Your task to perform on an android device: add a contact Image 0: 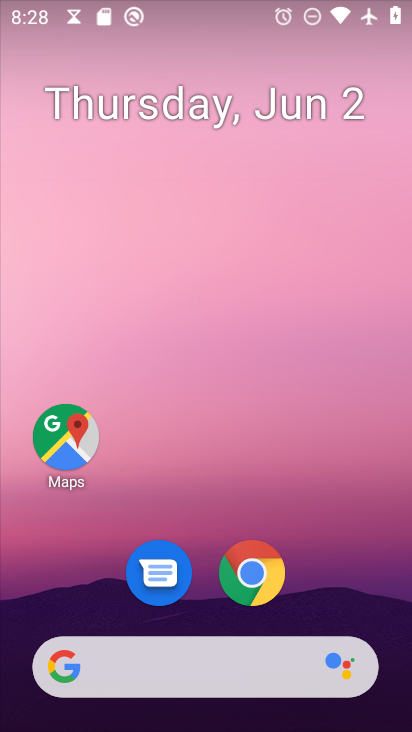
Step 0: press home button
Your task to perform on an android device: add a contact Image 1: 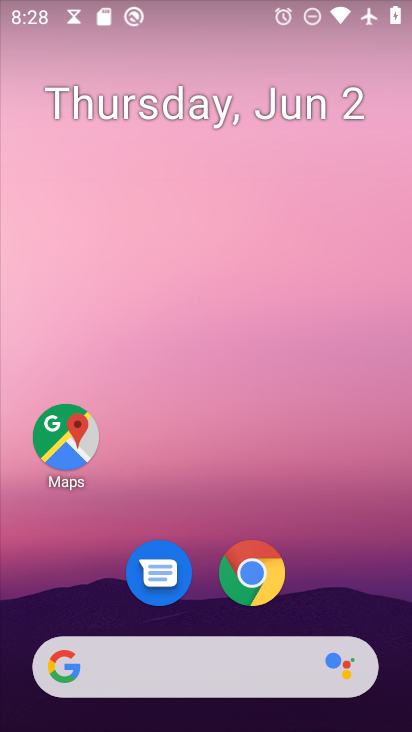
Step 1: drag from (169, 669) to (340, 105)
Your task to perform on an android device: add a contact Image 2: 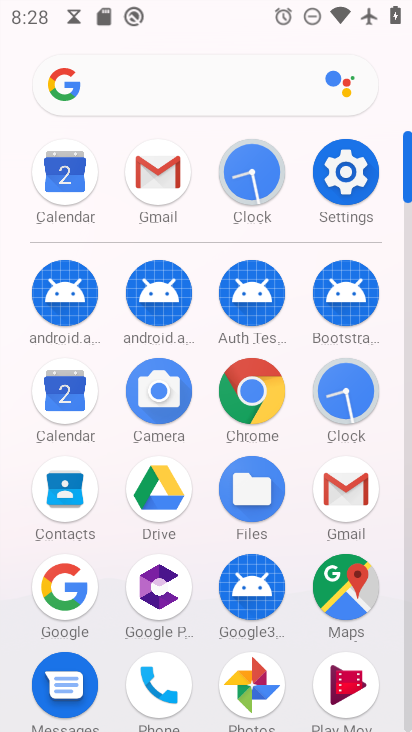
Step 2: click (72, 491)
Your task to perform on an android device: add a contact Image 3: 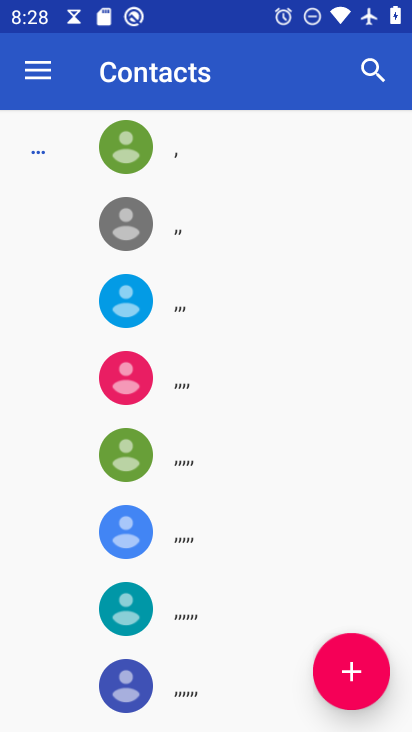
Step 3: click (358, 646)
Your task to perform on an android device: add a contact Image 4: 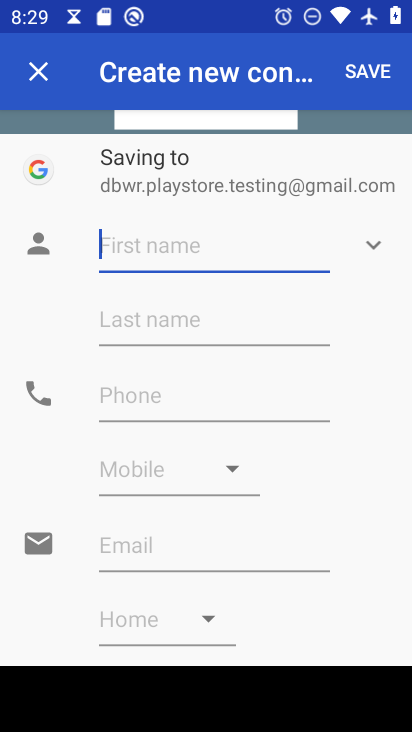
Step 4: type "bytgfhhhjj"
Your task to perform on an android device: add a contact Image 5: 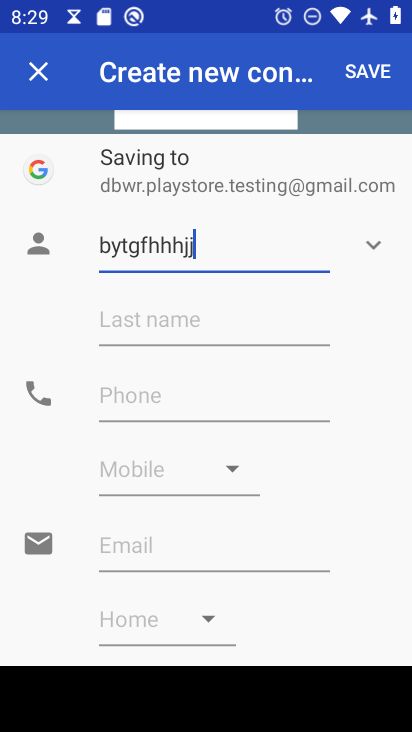
Step 5: click (134, 400)
Your task to perform on an android device: add a contact Image 6: 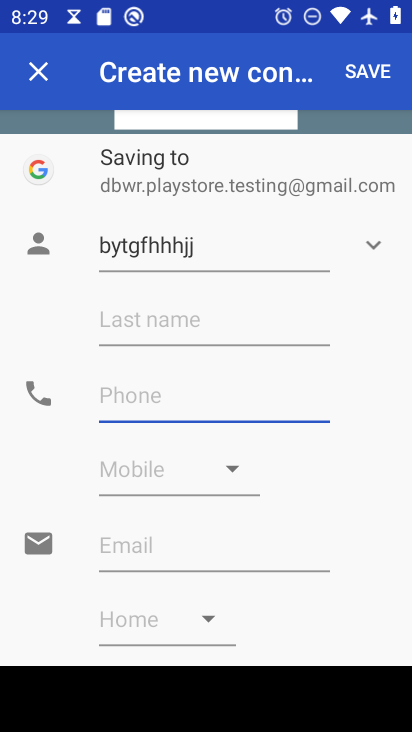
Step 6: type "76658876"
Your task to perform on an android device: add a contact Image 7: 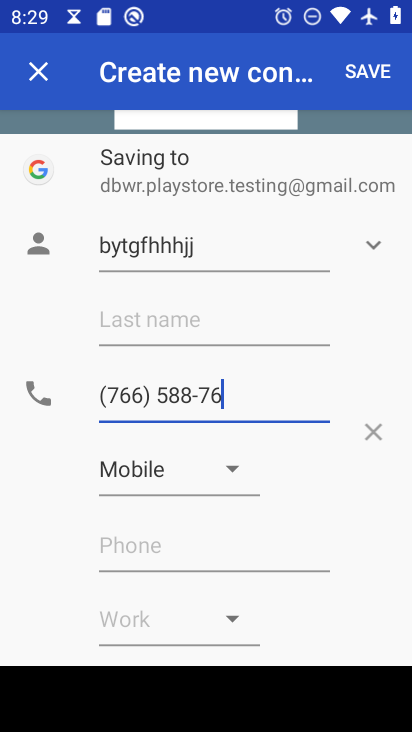
Step 7: click (370, 65)
Your task to perform on an android device: add a contact Image 8: 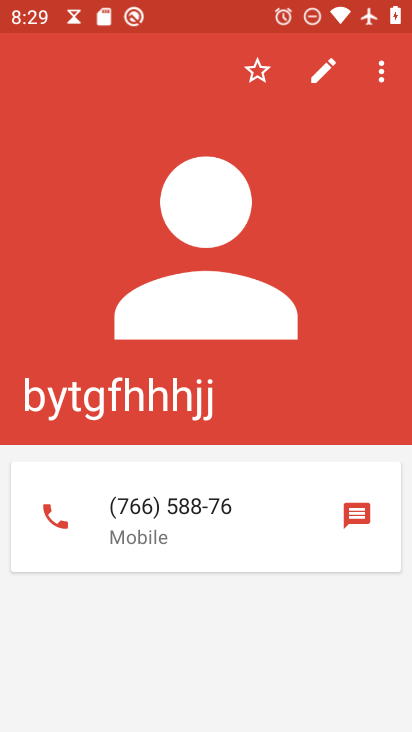
Step 8: task complete